Your task to perform on an android device: toggle priority inbox in the gmail app Image 0: 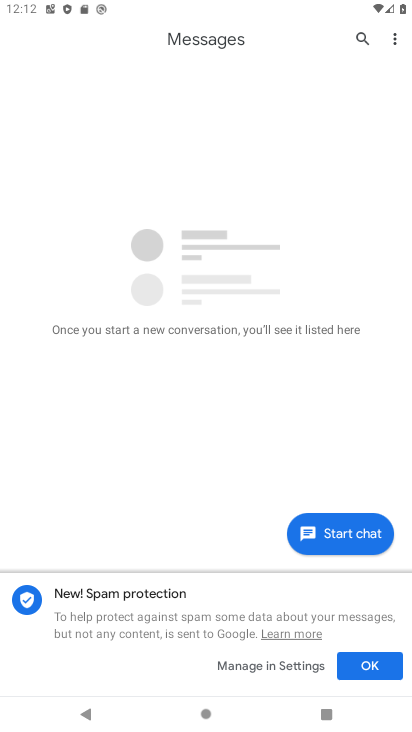
Step 0: press home button
Your task to perform on an android device: toggle priority inbox in the gmail app Image 1: 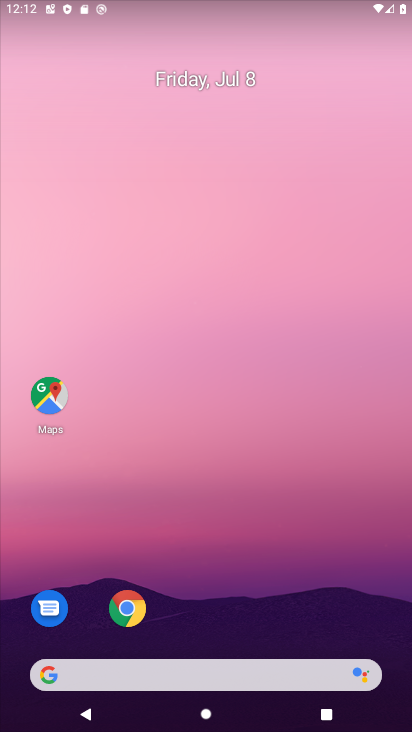
Step 1: drag from (266, 644) to (261, 158)
Your task to perform on an android device: toggle priority inbox in the gmail app Image 2: 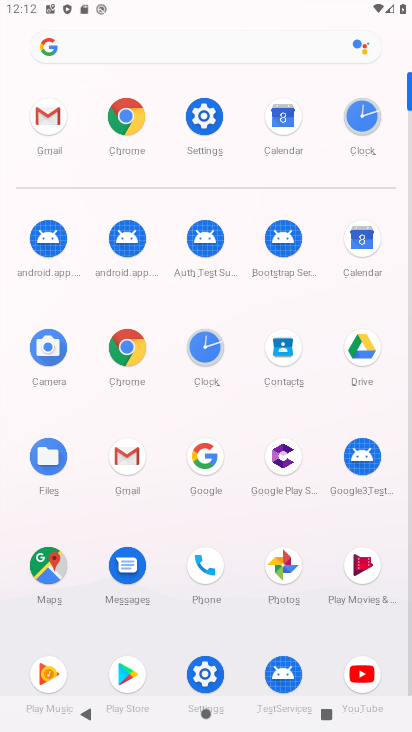
Step 2: click (127, 449)
Your task to perform on an android device: toggle priority inbox in the gmail app Image 3: 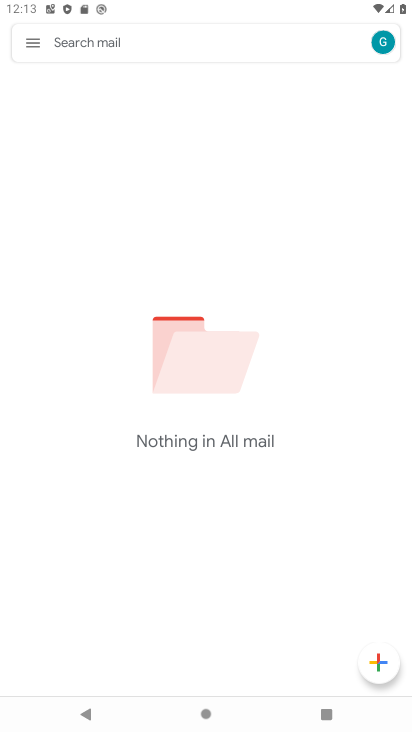
Step 3: click (23, 53)
Your task to perform on an android device: toggle priority inbox in the gmail app Image 4: 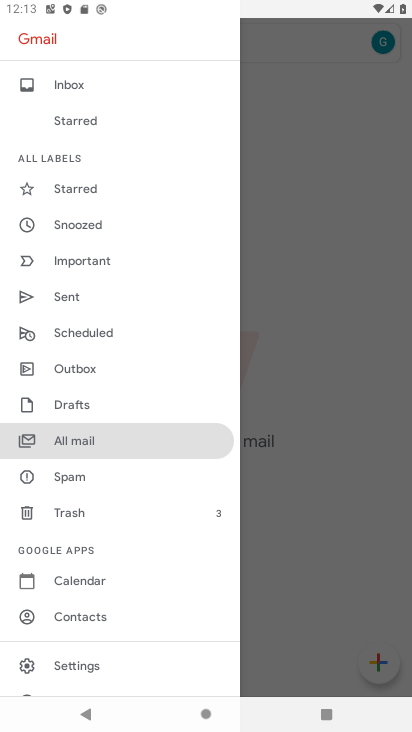
Step 4: click (159, 673)
Your task to perform on an android device: toggle priority inbox in the gmail app Image 5: 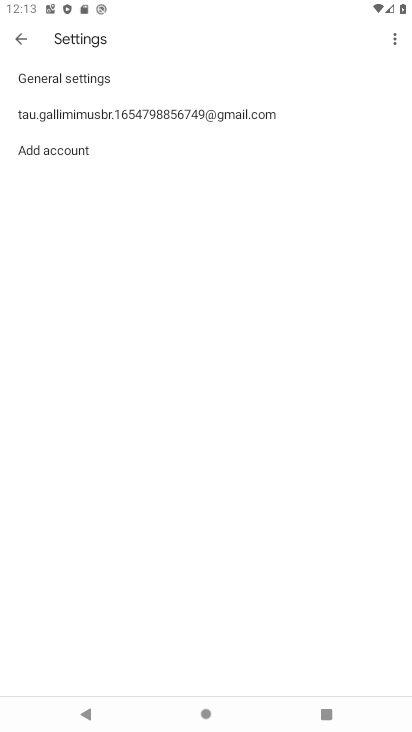
Step 5: press home button
Your task to perform on an android device: toggle priority inbox in the gmail app Image 6: 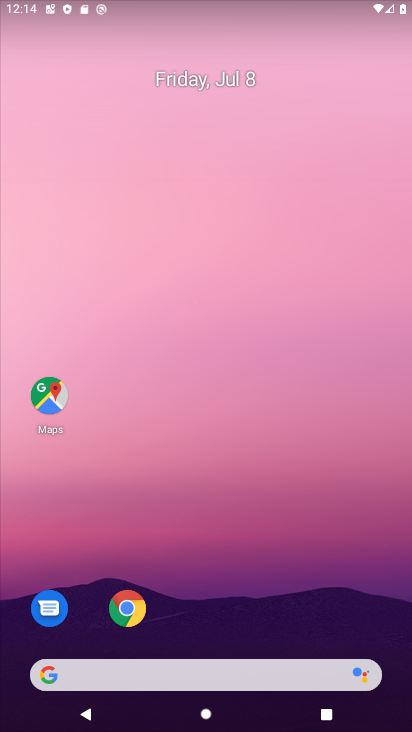
Step 6: drag from (332, 585) to (195, 49)
Your task to perform on an android device: toggle priority inbox in the gmail app Image 7: 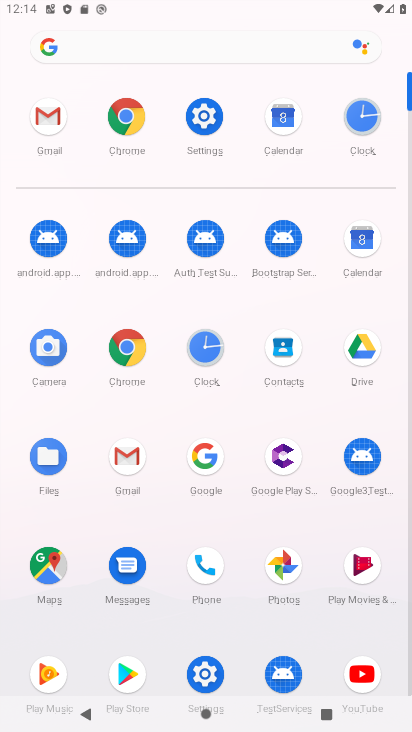
Step 7: click (48, 121)
Your task to perform on an android device: toggle priority inbox in the gmail app Image 8: 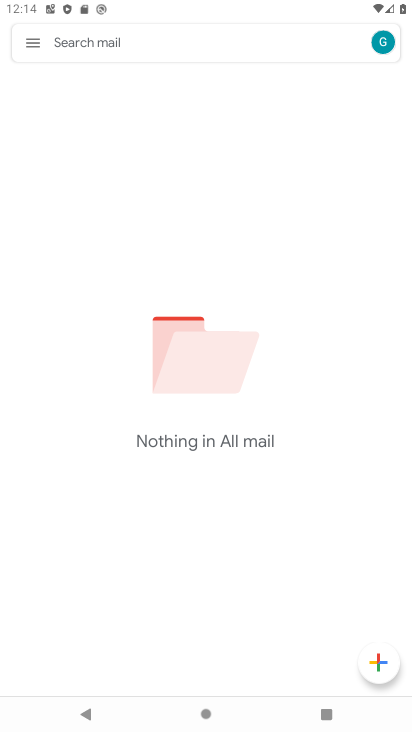
Step 8: click (37, 50)
Your task to perform on an android device: toggle priority inbox in the gmail app Image 9: 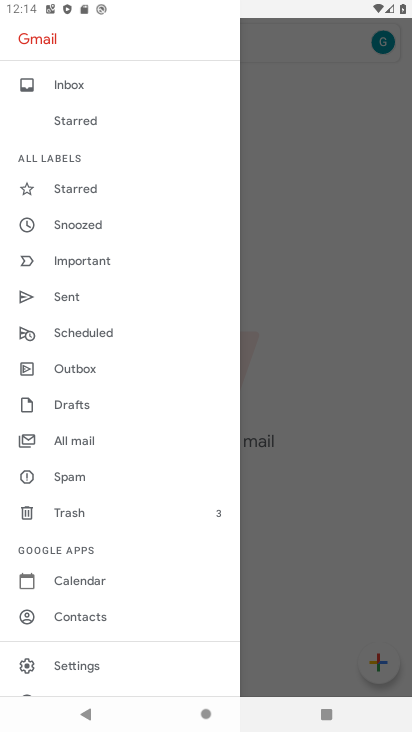
Step 9: click (95, 650)
Your task to perform on an android device: toggle priority inbox in the gmail app Image 10: 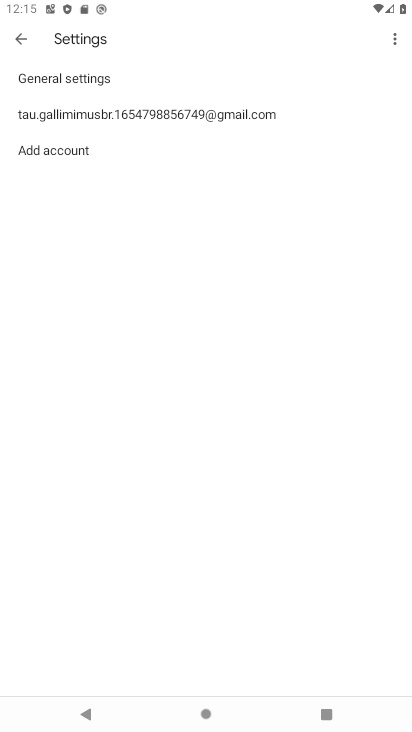
Step 10: task complete